Your task to perform on an android device: Do I have any events today? Image 0: 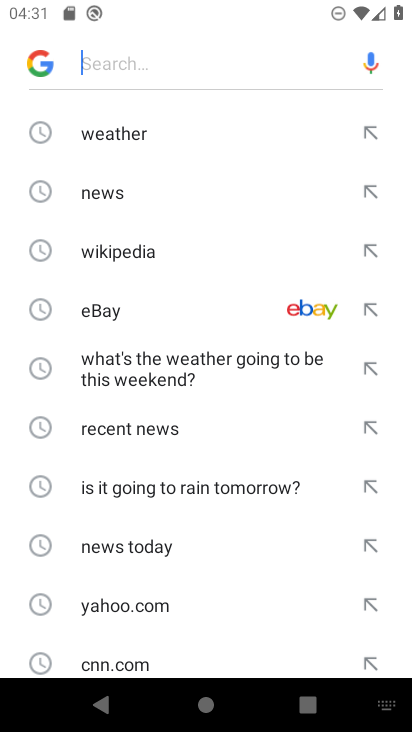
Step 0: press home button
Your task to perform on an android device: Do I have any events today? Image 1: 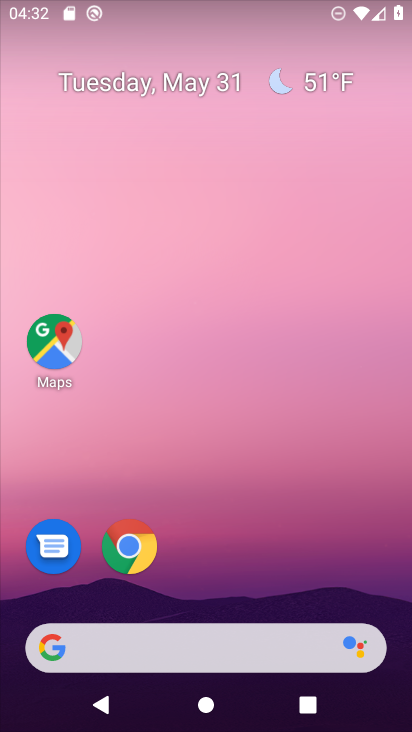
Step 1: drag from (182, 590) to (145, 249)
Your task to perform on an android device: Do I have any events today? Image 2: 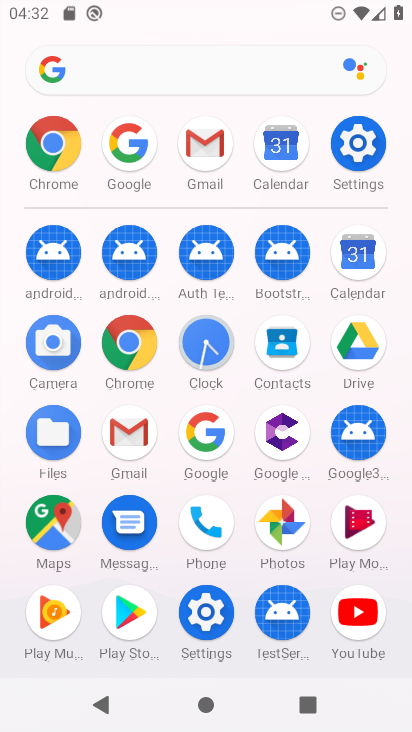
Step 2: click (278, 163)
Your task to perform on an android device: Do I have any events today? Image 3: 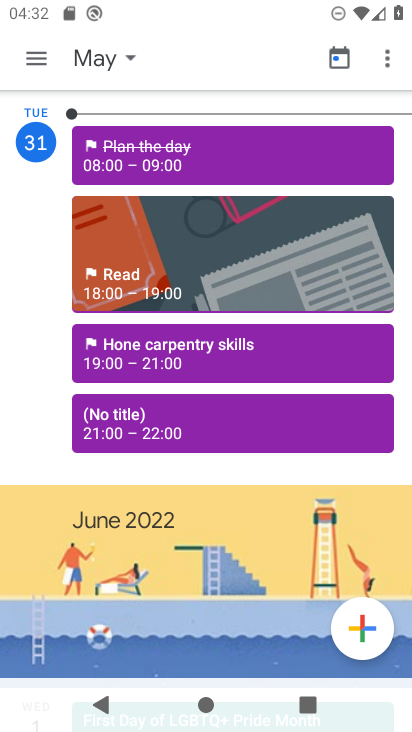
Step 3: click (279, 133)
Your task to perform on an android device: Do I have any events today? Image 4: 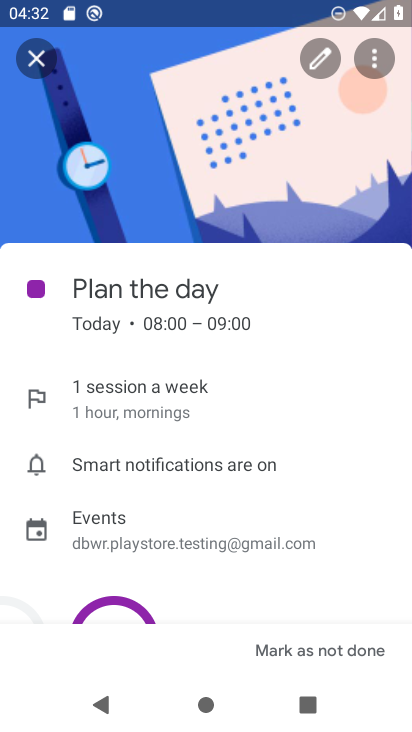
Step 4: click (33, 71)
Your task to perform on an android device: Do I have any events today? Image 5: 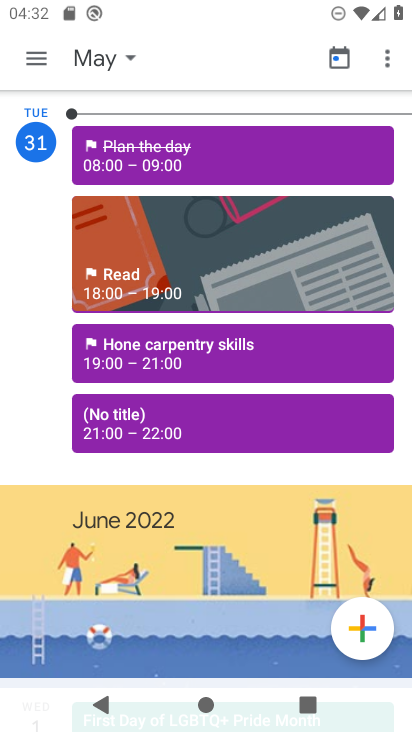
Step 5: task complete